Your task to perform on an android device: turn off airplane mode Image 0: 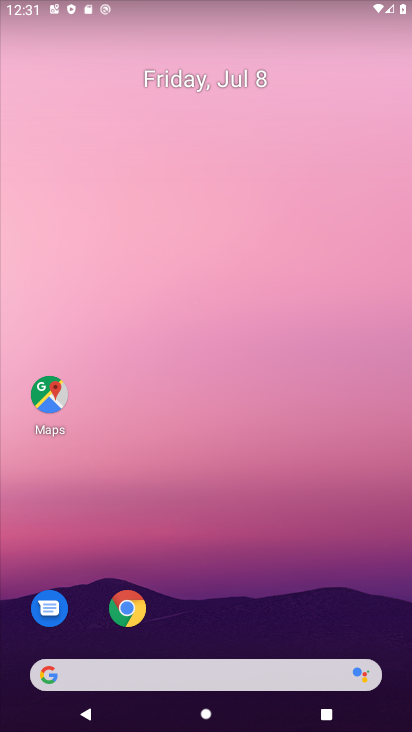
Step 0: drag from (218, 638) to (239, 30)
Your task to perform on an android device: turn off airplane mode Image 1: 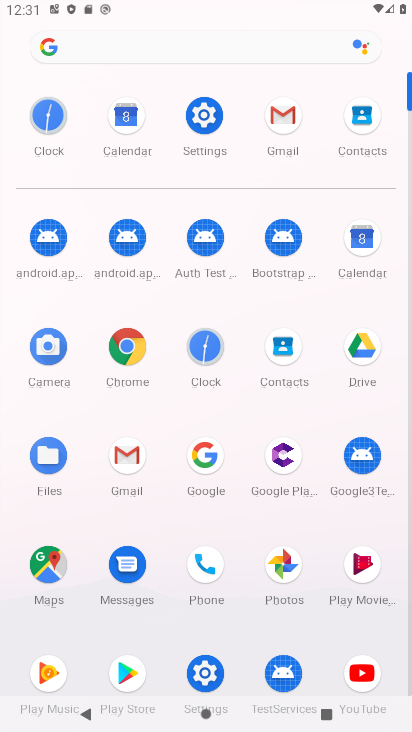
Step 1: click (215, 133)
Your task to perform on an android device: turn off airplane mode Image 2: 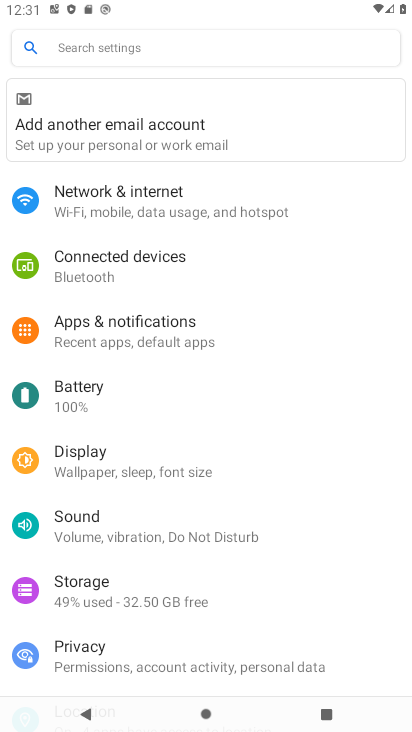
Step 2: click (212, 182)
Your task to perform on an android device: turn off airplane mode Image 3: 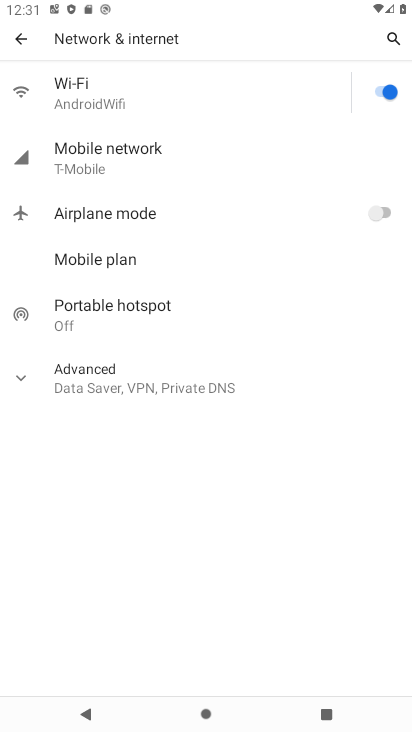
Step 3: click (324, 214)
Your task to perform on an android device: turn off airplane mode Image 4: 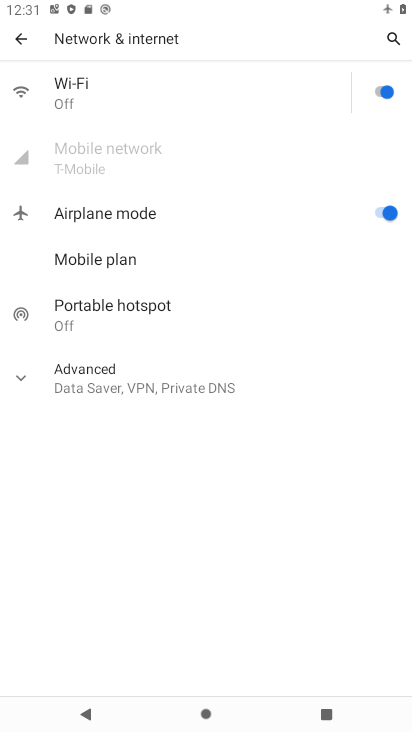
Step 4: click (324, 214)
Your task to perform on an android device: turn off airplane mode Image 5: 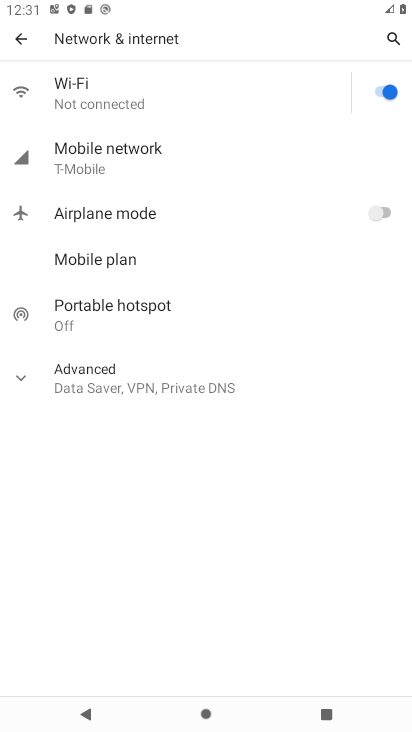
Step 5: task complete